Your task to perform on an android device: change notifications settings Image 0: 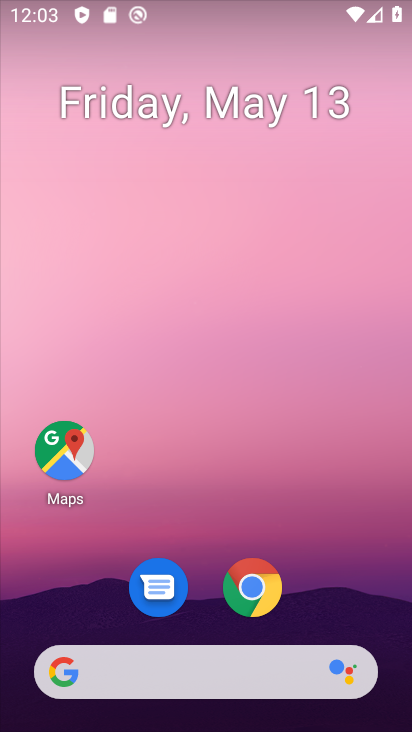
Step 0: drag from (204, 534) to (262, 72)
Your task to perform on an android device: change notifications settings Image 1: 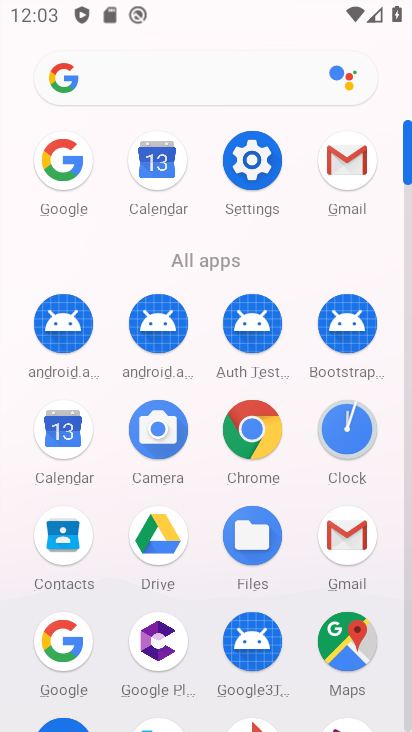
Step 1: click (248, 161)
Your task to perform on an android device: change notifications settings Image 2: 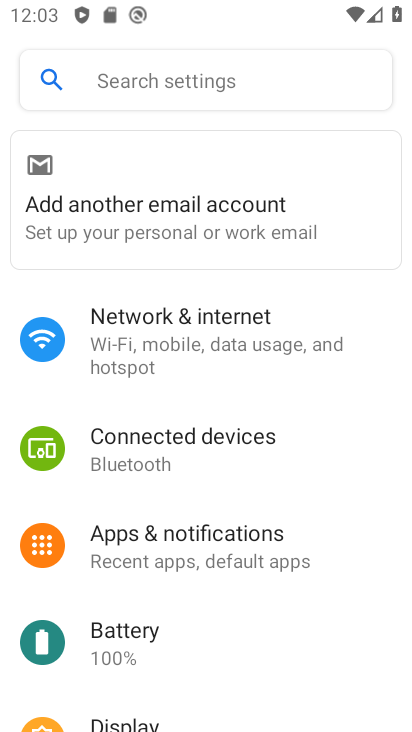
Step 2: click (191, 533)
Your task to perform on an android device: change notifications settings Image 3: 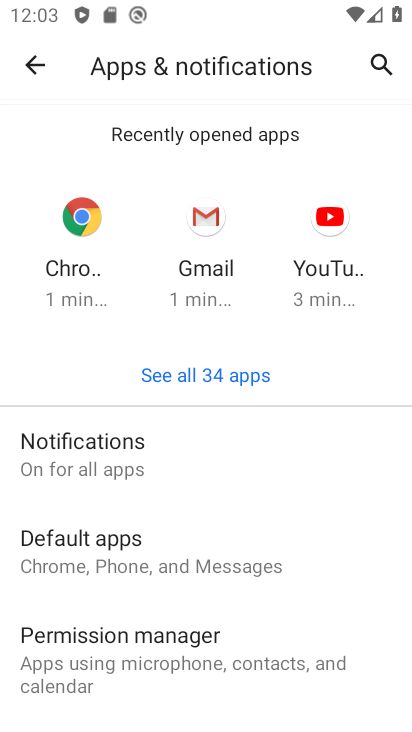
Step 3: click (129, 469)
Your task to perform on an android device: change notifications settings Image 4: 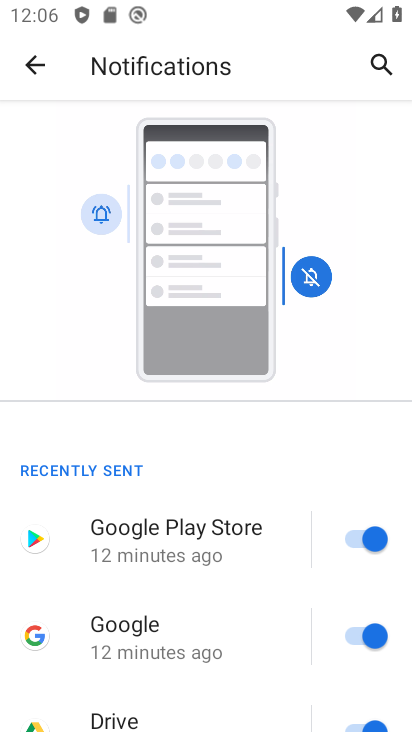
Step 4: drag from (214, 659) to (294, 234)
Your task to perform on an android device: change notifications settings Image 5: 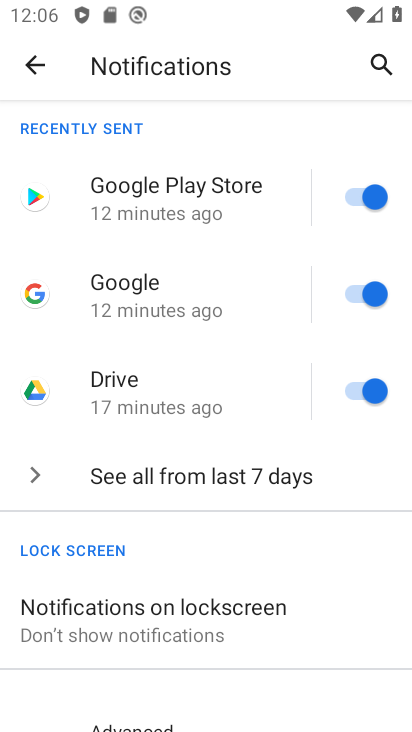
Step 5: drag from (193, 606) to (253, 258)
Your task to perform on an android device: change notifications settings Image 6: 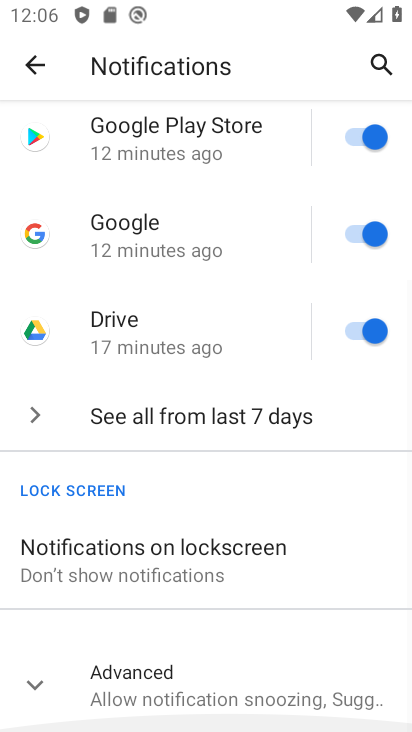
Step 6: click (129, 681)
Your task to perform on an android device: change notifications settings Image 7: 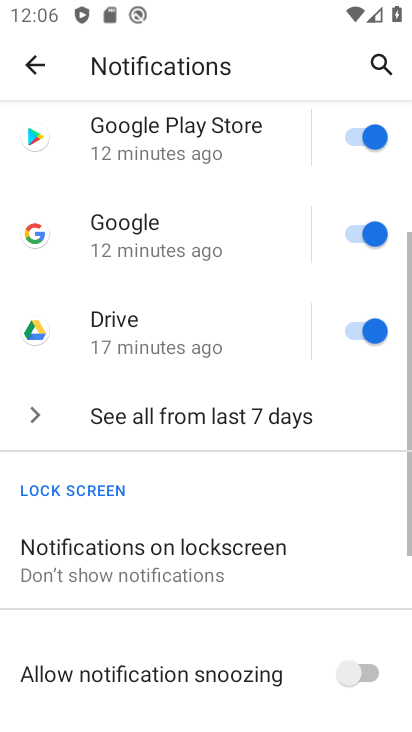
Step 7: drag from (188, 645) to (237, 272)
Your task to perform on an android device: change notifications settings Image 8: 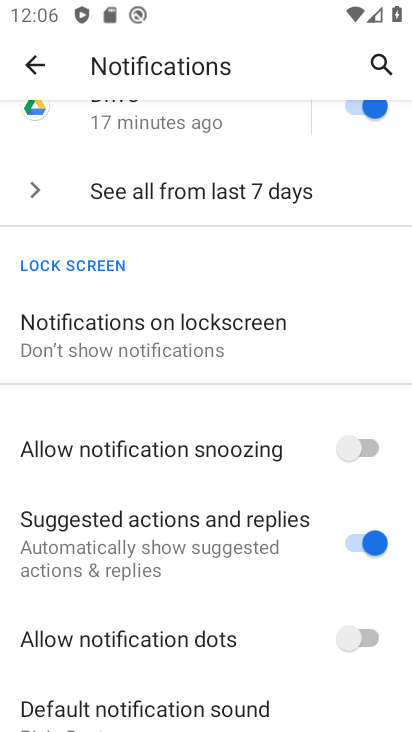
Step 8: click (347, 443)
Your task to perform on an android device: change notifications settings Image 9: 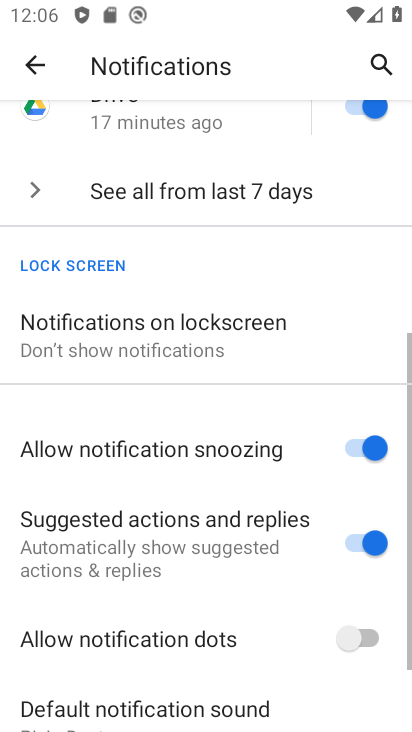
Step 9: task complete